Your task to perform on an android device: check android version Image 0: 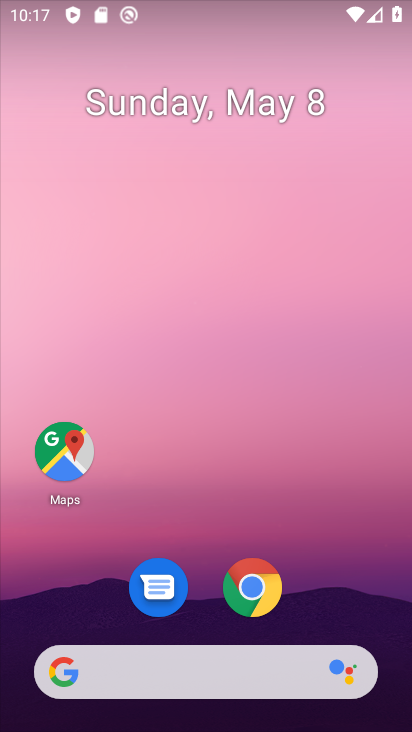
Step 0: drag from (354, 589) to (79, 102)
Your task to perform on an android device: check android version Image 1: 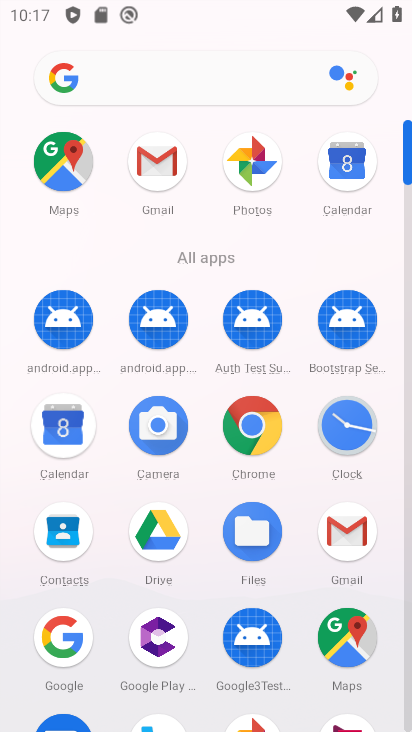
Step 1: click (64, 631)
Your task to perform on an android device: check android version Image 2: 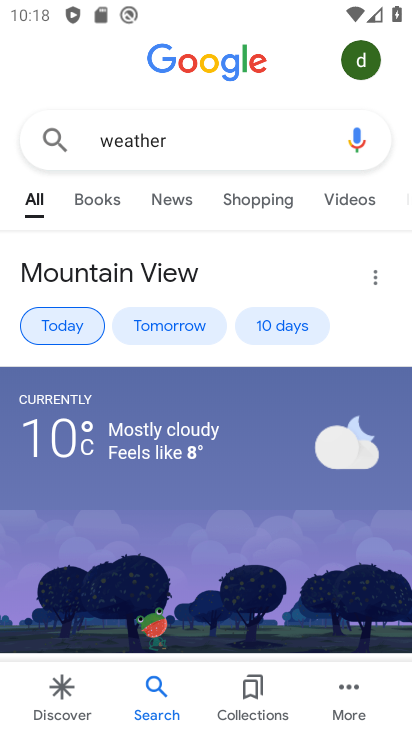
Step 2: click (339, 701)
Your task to perform on an android device: check android version Image 3: 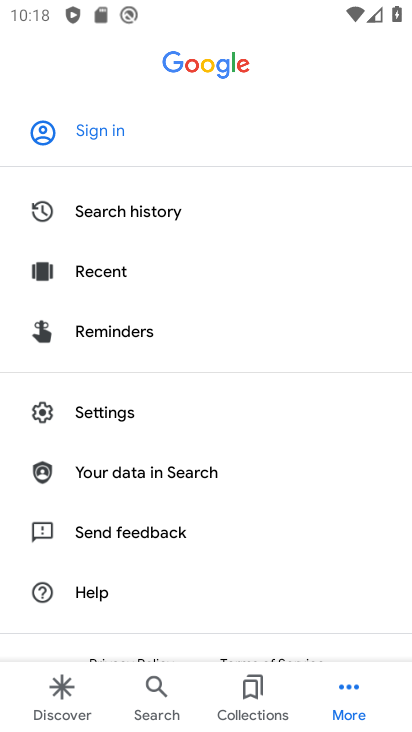
Step 3: click (345, 703)
Your task to perform on an android device: check android version Image 4: 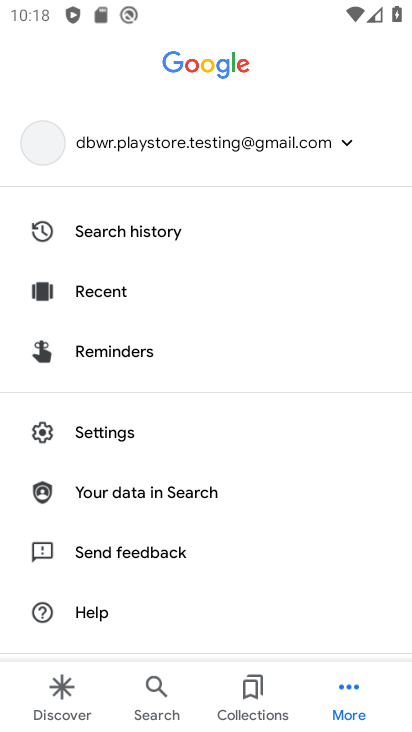
Step 4: click (348, 705)
Your task to perform on an android device: check android version Image 5: 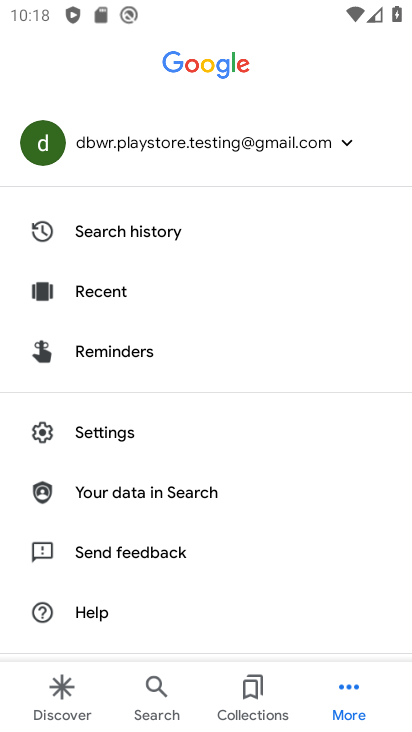
Step 5: click (348, 705)
Your task to perform on an android device: check android version Image 6: 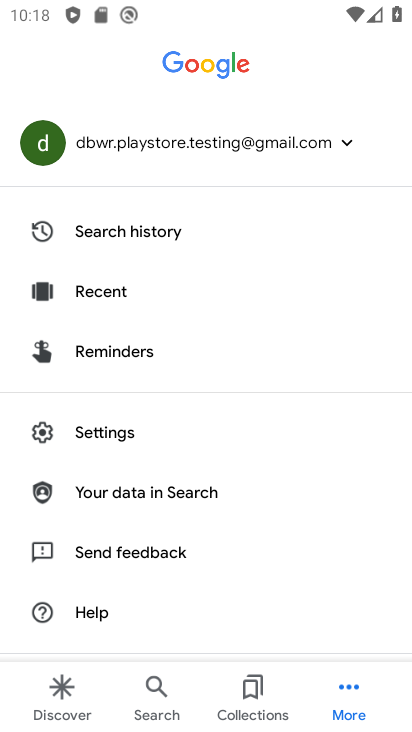
Step 6: drag from (242, 531) to (176, 175)
Your task to perform on an android device: check android version Image 7: 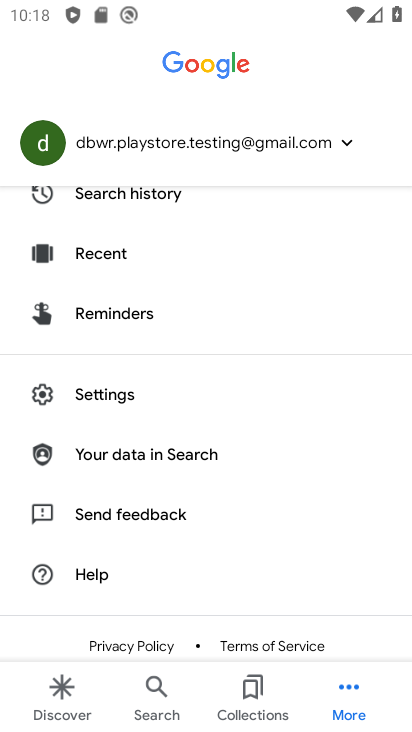
Step 7: click (97, 392)
Your task to perform on an android device: check android version Image 8: 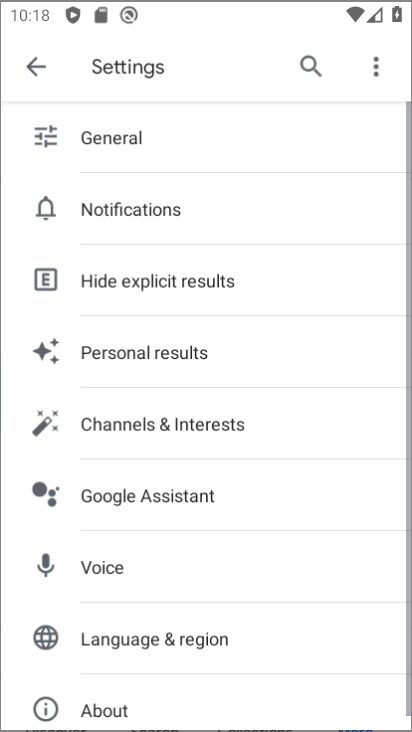
Step 8: click (99, 392)
Your task to perform on an android device: check android version Image 9: 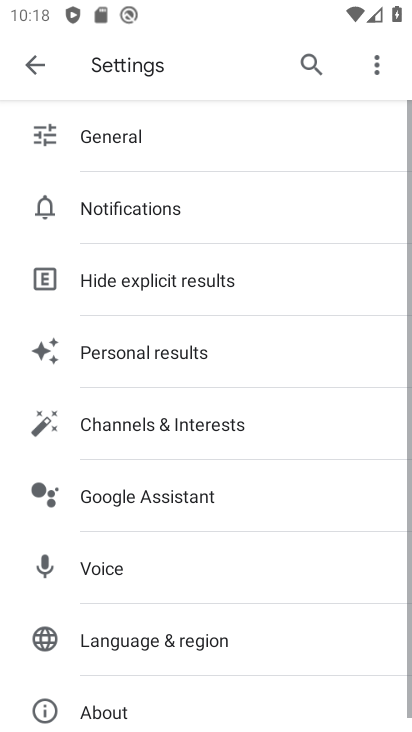
Step 9: click (100, 392)
Your task to perform on an android device: check android version Image 10: 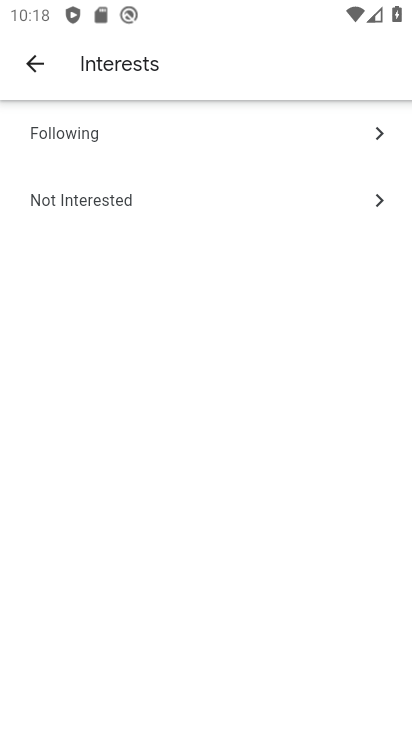
Step 10: click (29, 62)
Your task to perform on an android device: check android version Image 11: 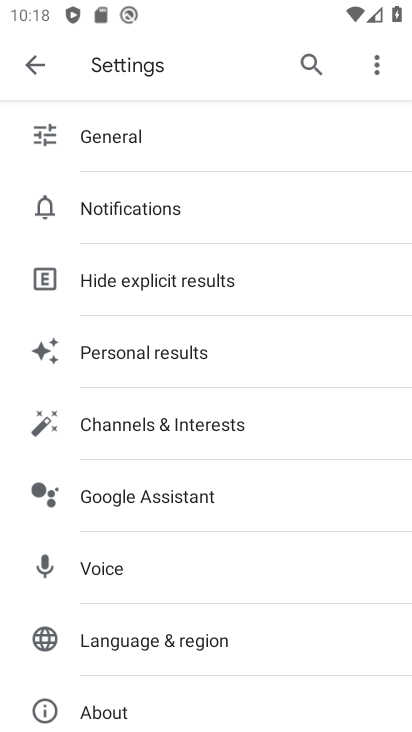
Step 11: drag from (143, 622) to (165, 214)
Your task to perform on an android device: check android version Image 12: 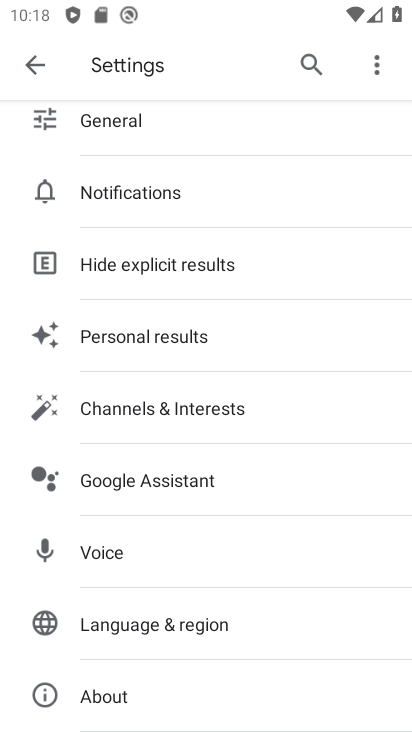
Step 12: click (153, 625)
Your task to perform on an android device: check android version Image 13: 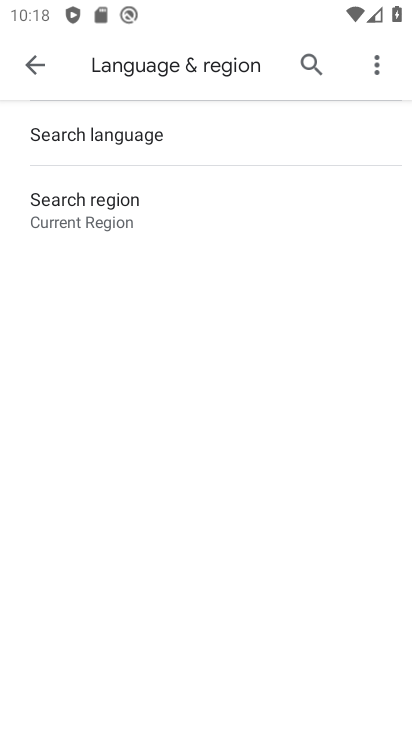
Step 13: click (38, 66)
Your task to perform on an android device: check android version Image 14: 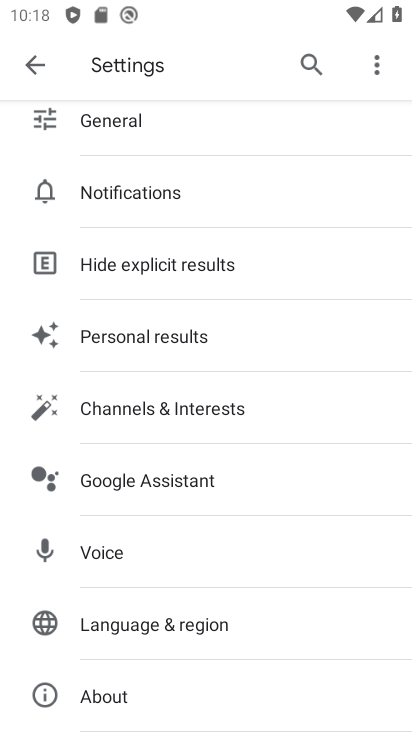
Step 14: click (84, 700)
Your task to perform on an android device: check android version Image 15: 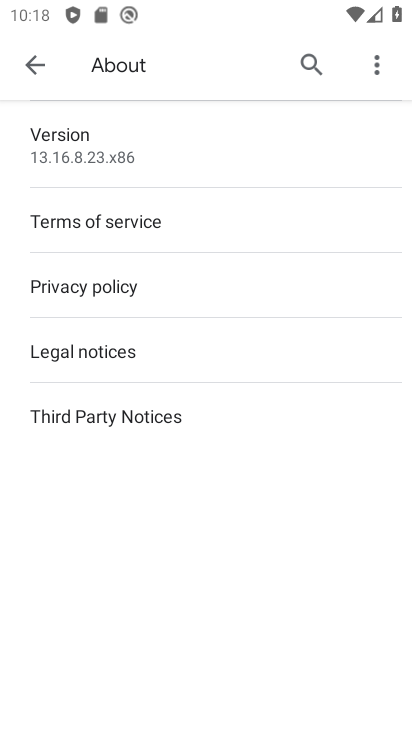
Step 15: task complete